Your task to perform on an android device: Do I have any events this weekend? Image 0: 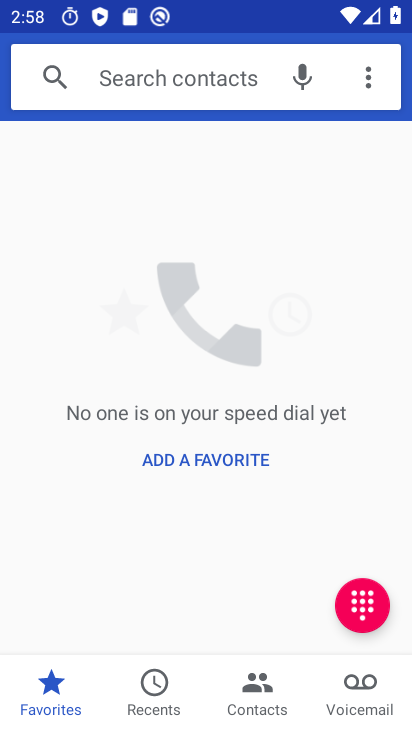
Step 0: press home button
Your task to perform on an android device: Do I have any events this weekend? Image 1: 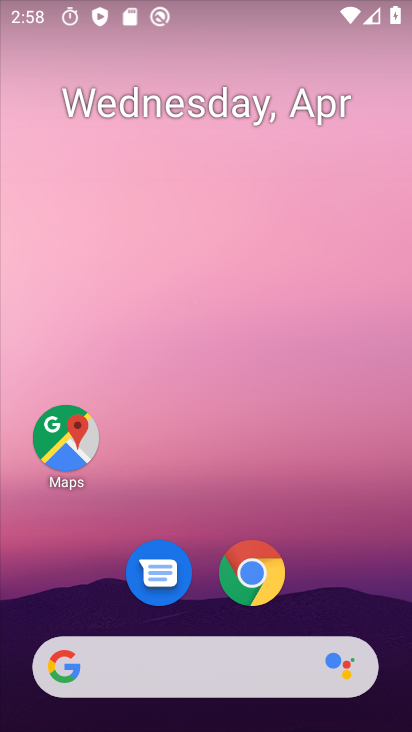
Step 1: drag from (202, 713) to (207, 0)
Your task to perform on an android device: Do I have any events this weekend? Image 2: 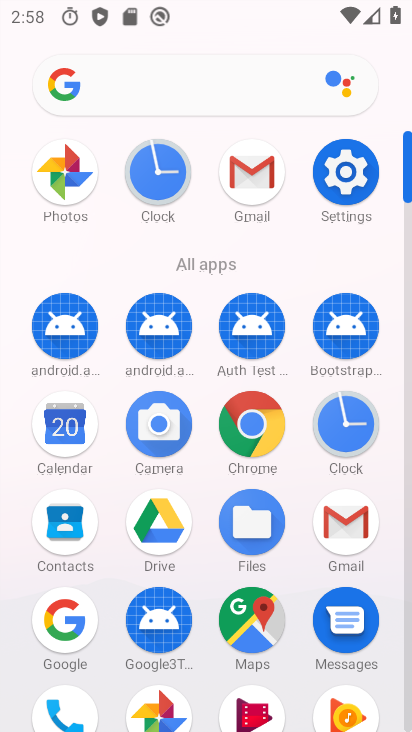
Step 2: click (66, 426)
Your task to perform on an android device: Do I have any events this weekend? Image 3: 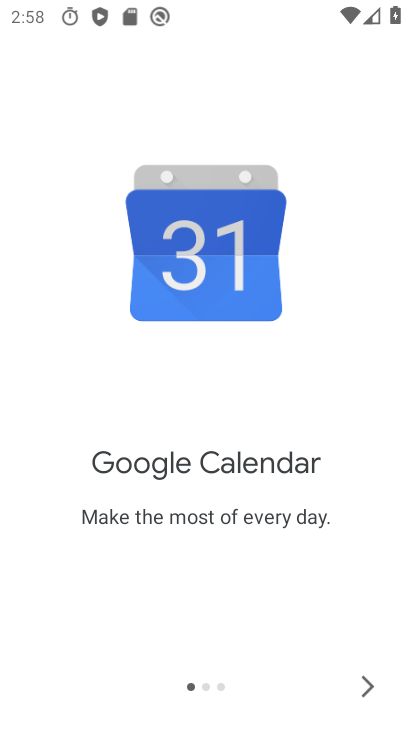
Step 3: click (367, 678)
Your task to perform on an android device: Do I have any events this weekend? Image 4: 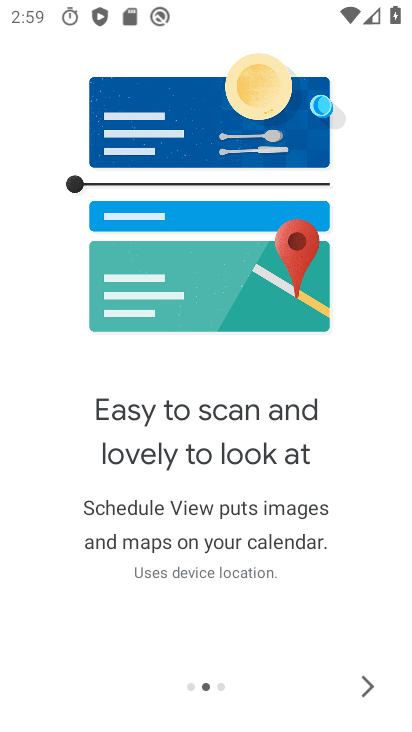
Step 4: click (367, 678)
Your task to perform on an android device: Do I have any events this weekend? Image 5: 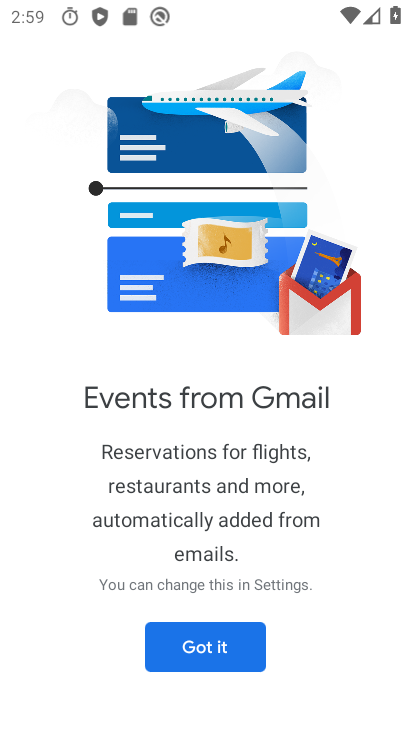
Step 5: click (218, 642)
Your task to perform on an android device: Do I have any events this weekend? Image 6: 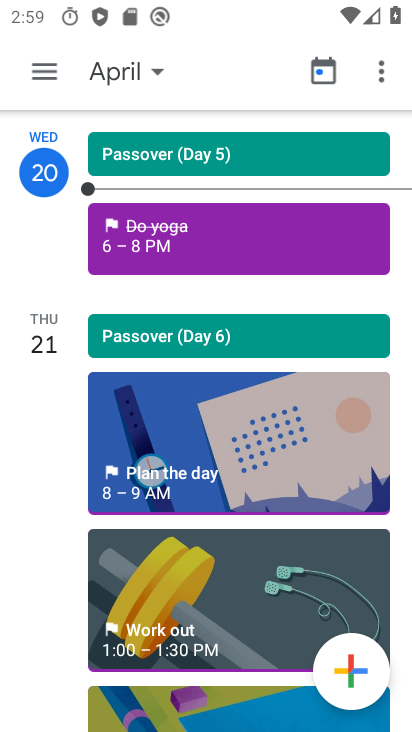
Step 6: click (106, 61)
Your task to perform on an android device: Do I have any events this weekend? Image 7: 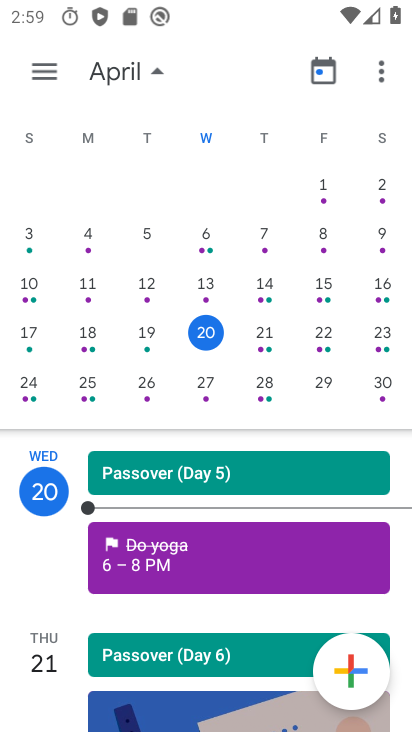
Step 7: click (378, 330)
Your task to perform on an android device: Do I have any events this weekend? Image 8: 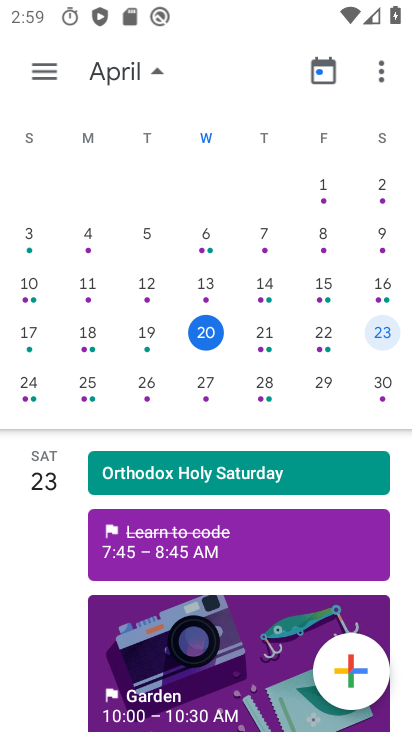
Step 8: task complete